Your task to perform on an android device: toggle improve location accuracy Image 0: 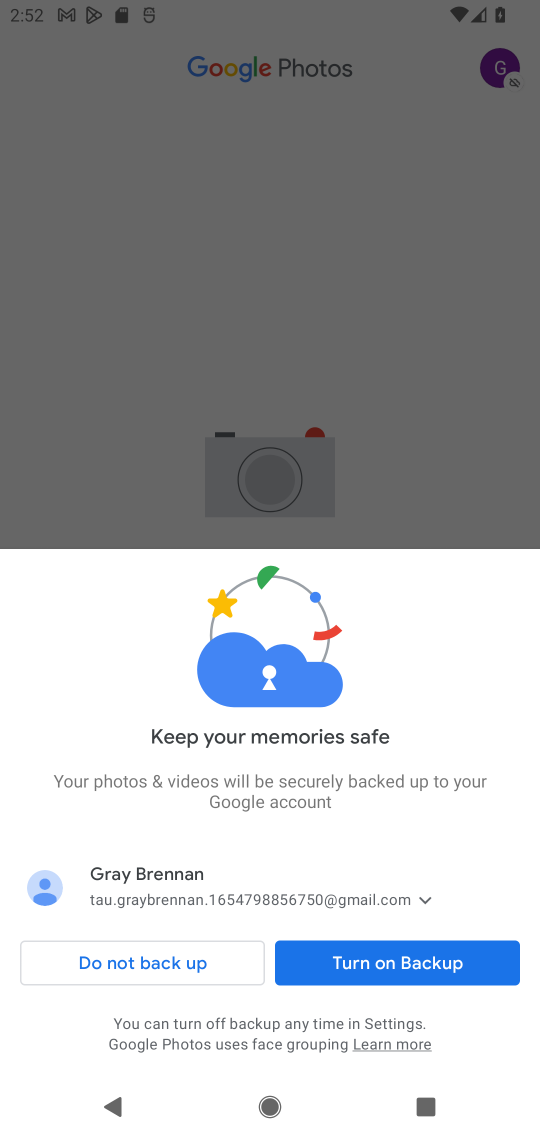
Step 0: press home button
Your task to perform on an android device: toggle improve location accuracy Image 1: 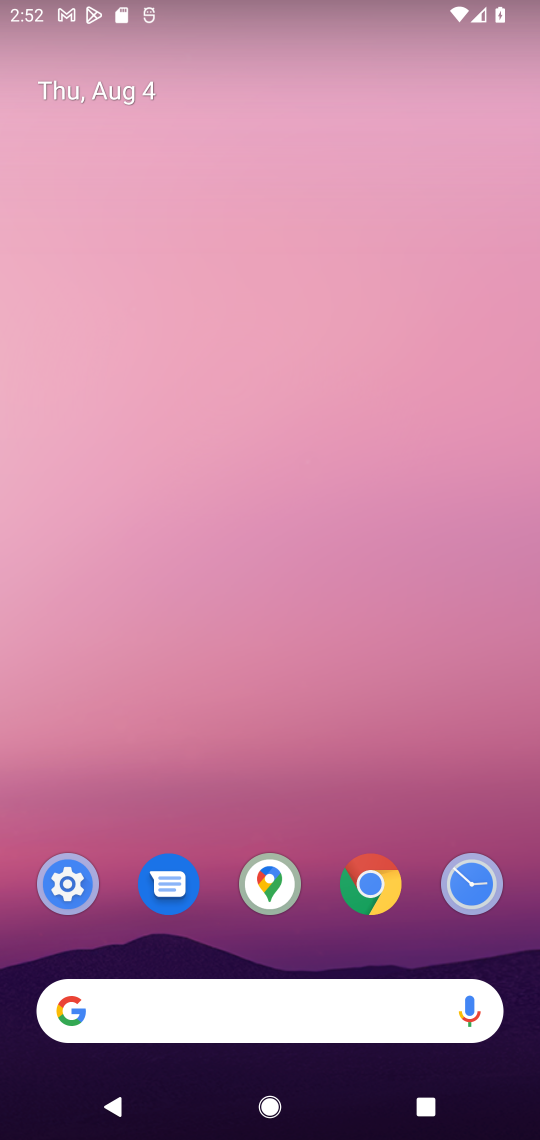
Step 1: drag from (321, 952) to (348, 130)
Your task to perform on an android device: toggle improve location accuracy Image 2: 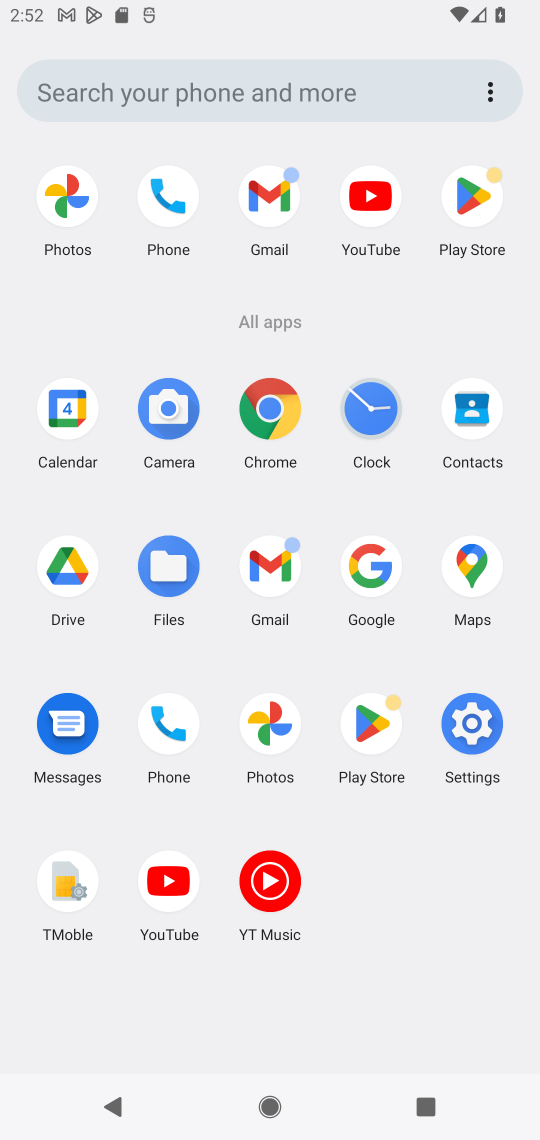
Step 2: click (487, 713)
Your task to perform on an android device: toggle improve location accuracy Image 3: 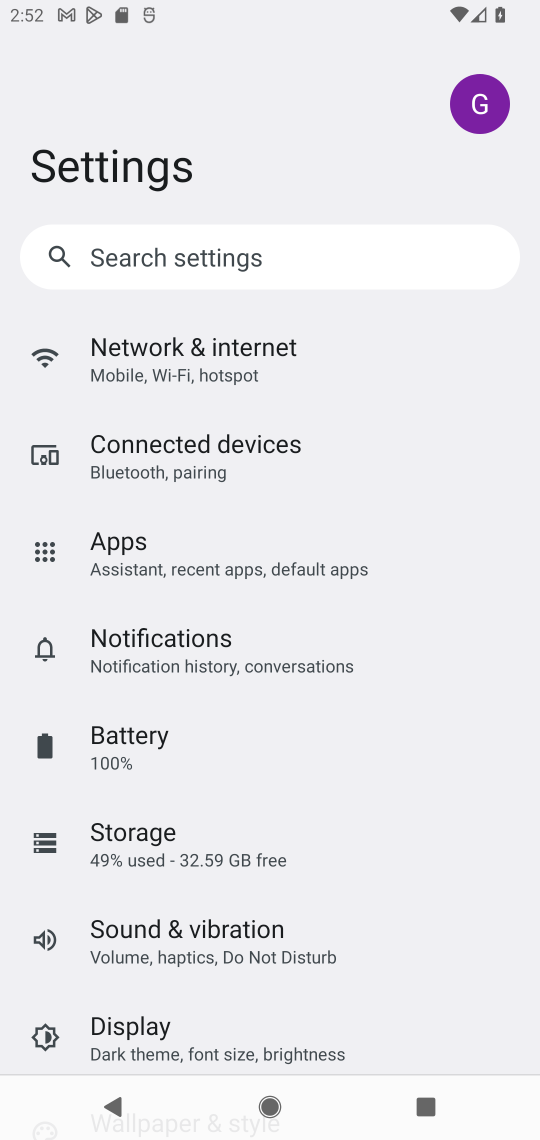
Step 3: drag from (235, 976) to (293, 168)
Your task to perform on an android device: toggle improve location accuracy Image 4: 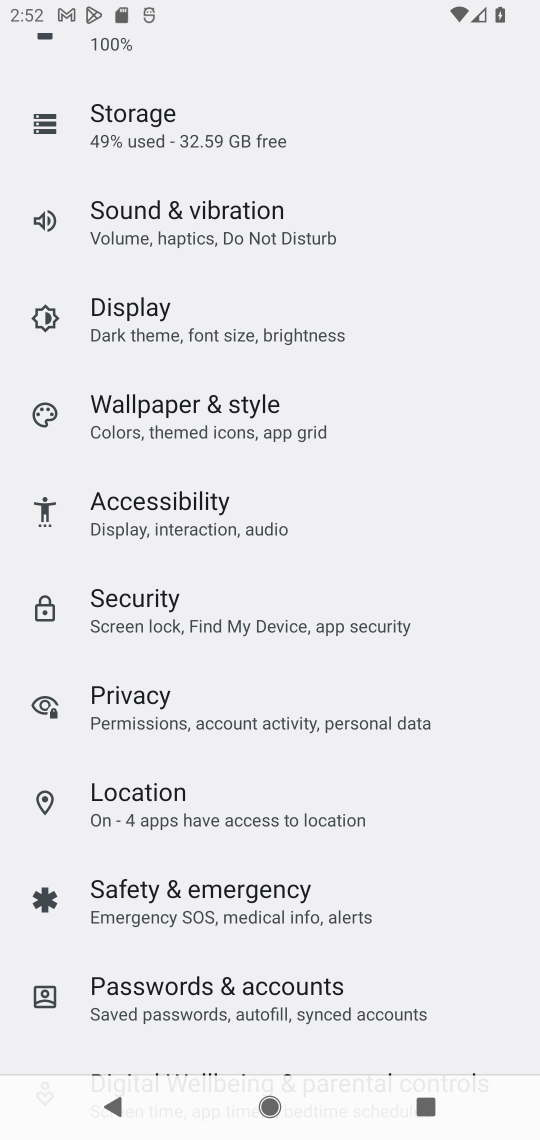
Step 4: click (135, 805)
Your task to perform on an android device: toggle improve location accuracy Image 5: 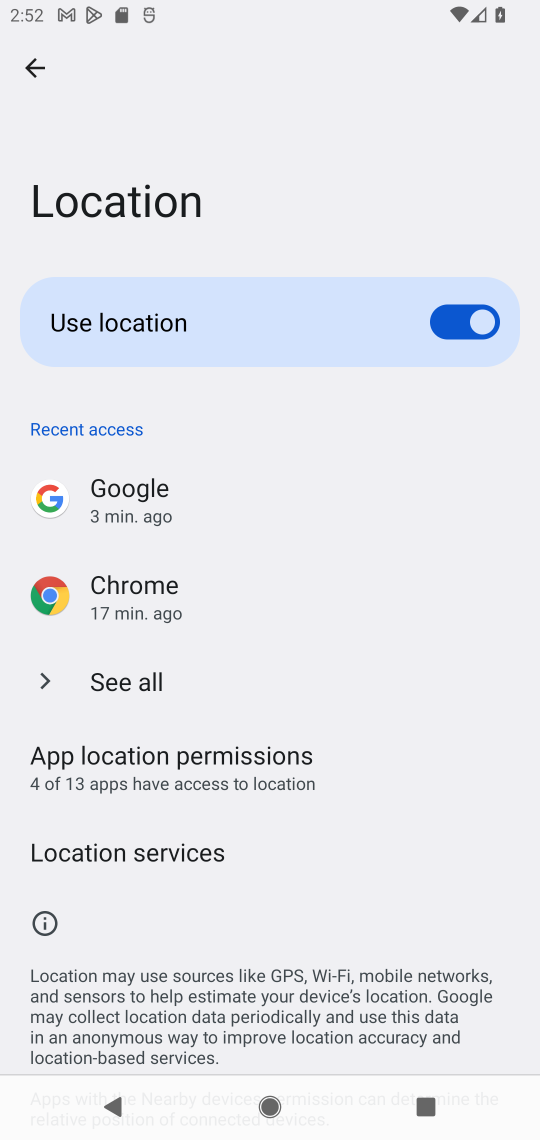
Step 5: task complete